Your task to perform on an android device: What's on my calendar today? Image 0: 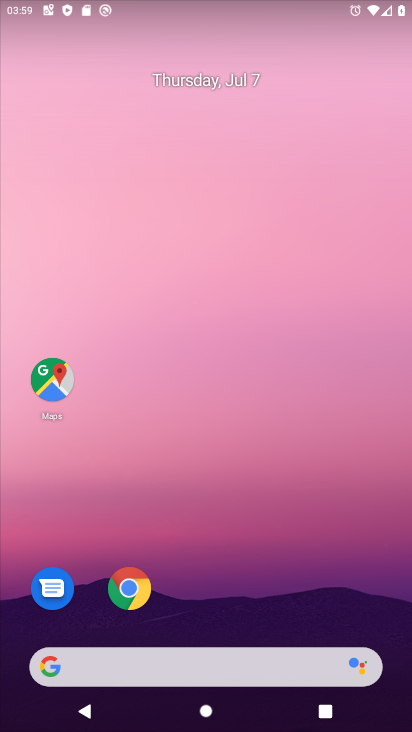
Step 0: drag from (147, 648) to (206, 406)
Your task to perform on an android device: What's on my calendar today? Image 1: 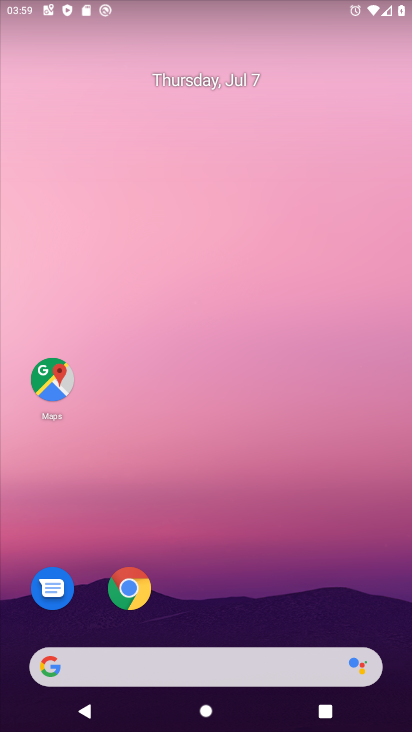
Step 1: drag from (213, 651) to (256, 183)
Your task to perform on an android device: What's on my calendar today? Image 2: 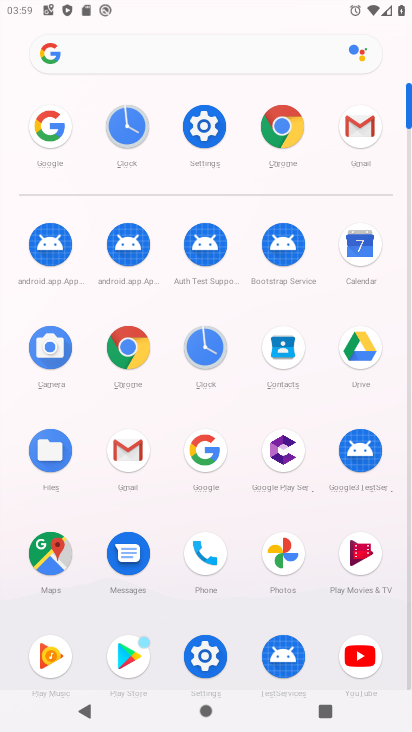
Step 2: click (355, 266)
Your task to perform on an android device: What's on my calendar today? Image 3: 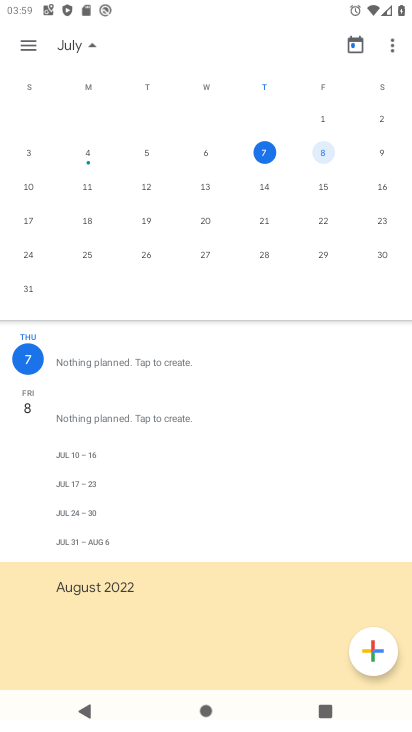
Step 3: click (260, 154)
Your task to perform on an android device: What's on my calendar today? Image 4: 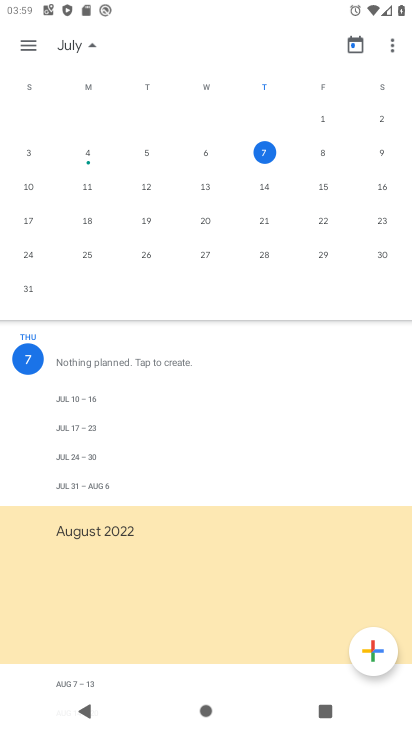
Step 4: task complete